Your task to perform on an android device: Open Chrome and go to settings Image 0: 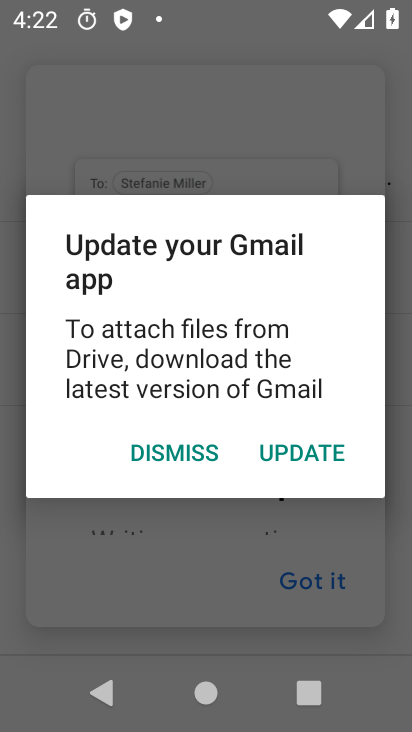
Step 0: press home button
Your task to perform on an android device: Open Chrome and go to settings Image 1: 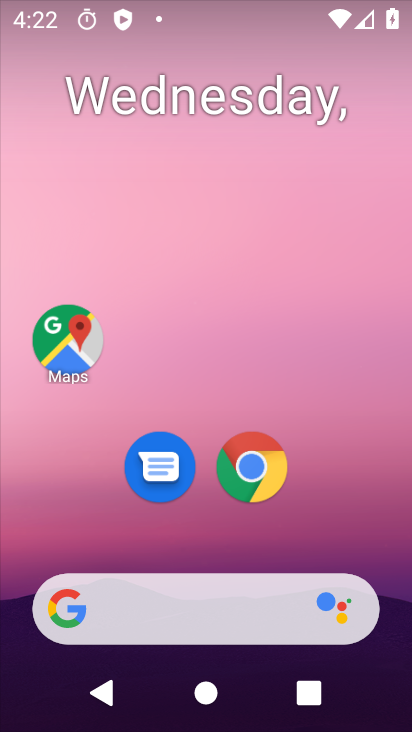
Step 1: click (246, 461)
Your task to perform on an android device: Open Chrome and go to settings Image 2: 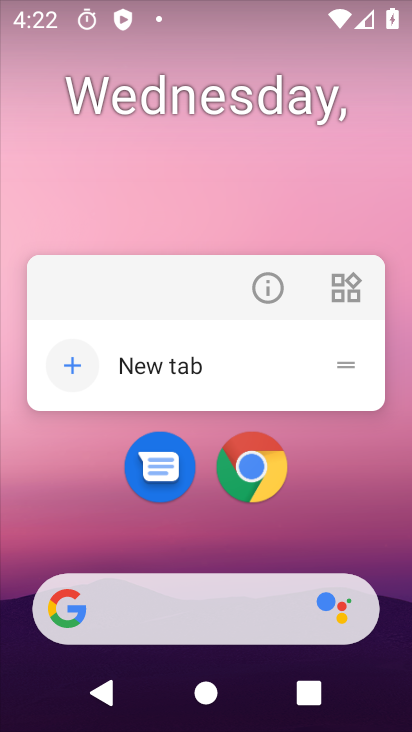
Step 2: click (253, 465)
Your task to perform on an android device: Open Chrome and go to settings Image 3: 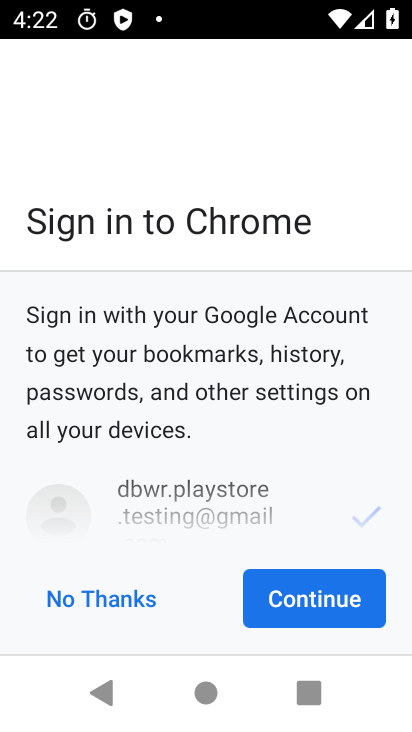
Step 3: click (296, 595)
Your task to perform on an android device: Open Chrome and go to settings Image 4: 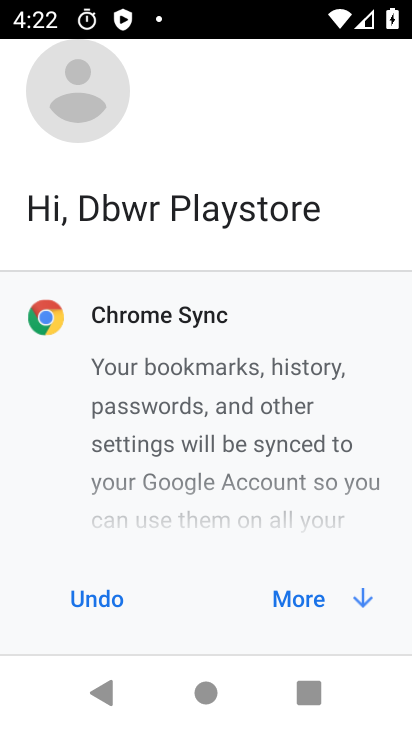
Step 4: click (296, 595)
Your task to perform on an android device: Open Chrome and go to settings Image 5: 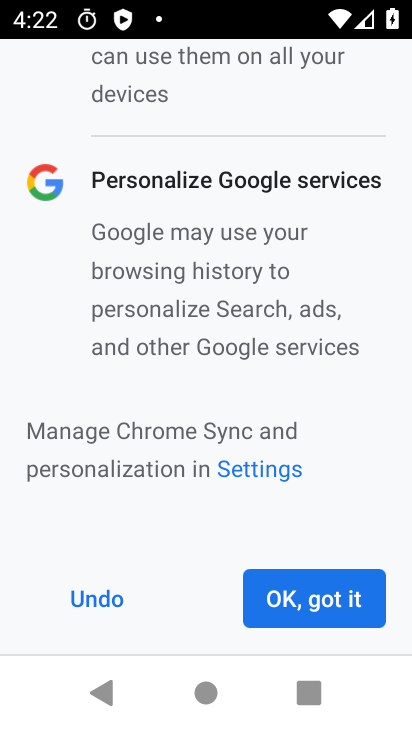
Step 5: click (296, 595)
Your task to perform on an android device: Open Chrome and go to settings Image 6: 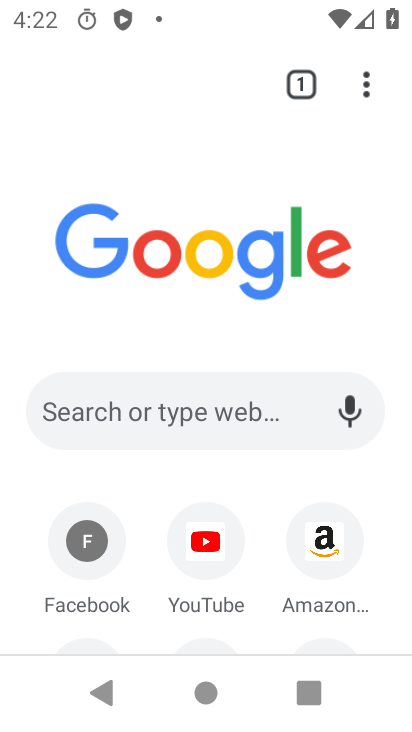
Step 6: click (367, 83)
Your task to perform on an android device: Open Chrome and go to settings Image 7: 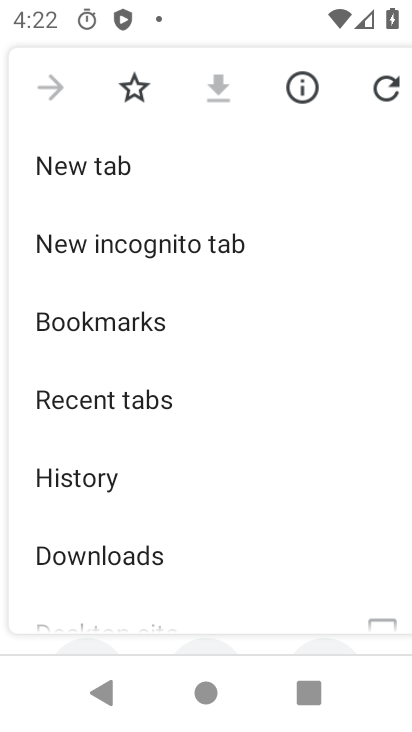
Step 7: drag from (238, 569) to (262, 169)
Your task to perform on an android device: Open Chrome and go to settings Image 8: 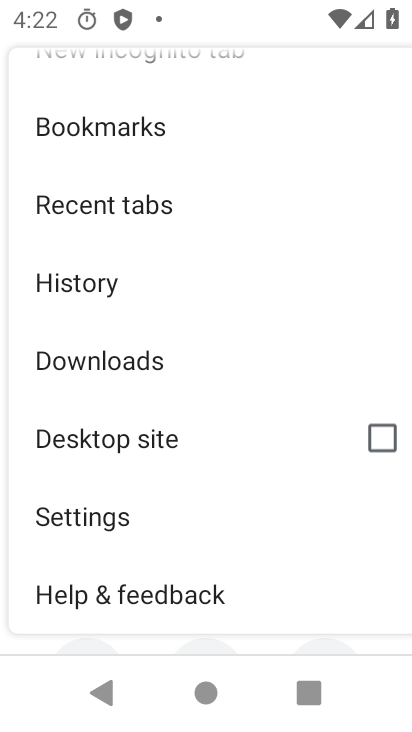
Step 8: click (99, 513)
Your task to perform on an android device: Open Chrome and go to settings Image 9: 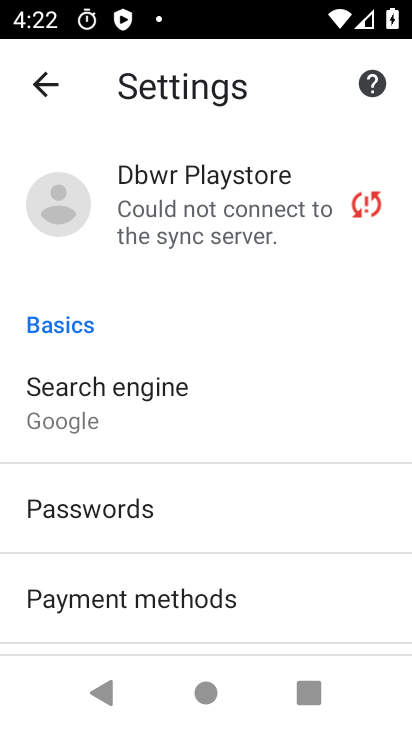
Step 9: task complete